Your task to perform on an android device: turn pop-ups off in chrome Image 0: 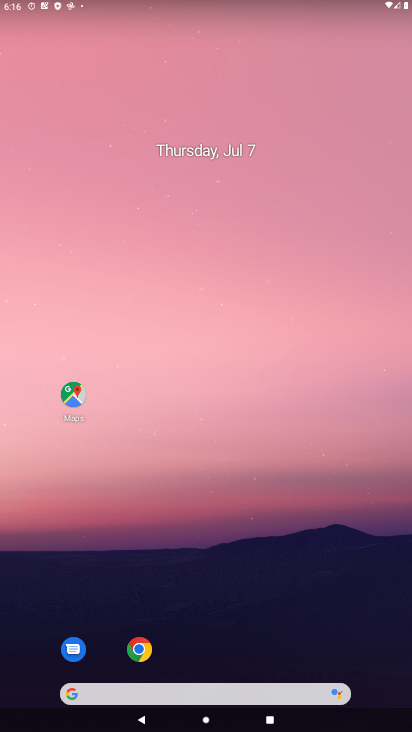
Step 0: drag from (371, 667) to (248, 151)
Your task to perform on an android device: turn pop-ups off in chrome Image 1: 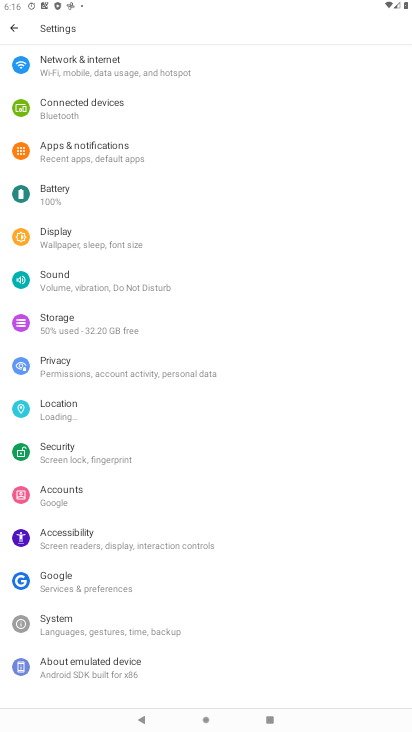
Step 1: press home button
Your task to perform on an android device: turn pop-ups off in chrome Image 2: 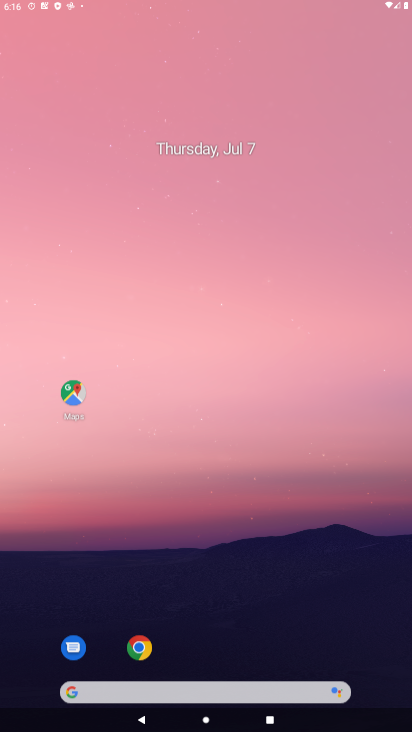
Step 2: drag from (384, 714) to (240, 115)
Your task to perform on an android device: turn pop-ups off in chrome Image 3: 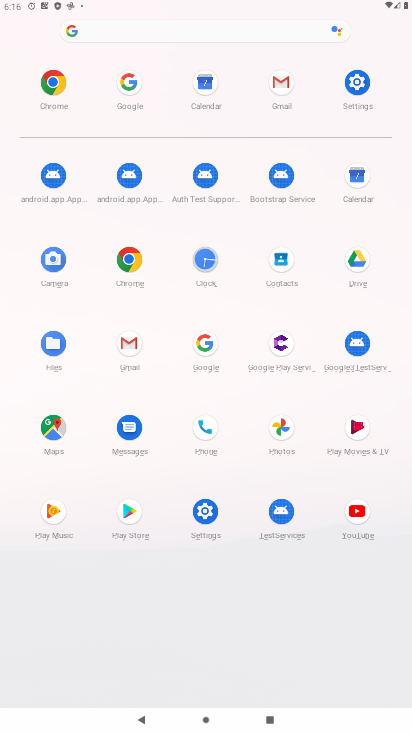
Step 3: click (134, 269)
Your task to perform on an android device: turn pop-ups off in chrome Image 4: 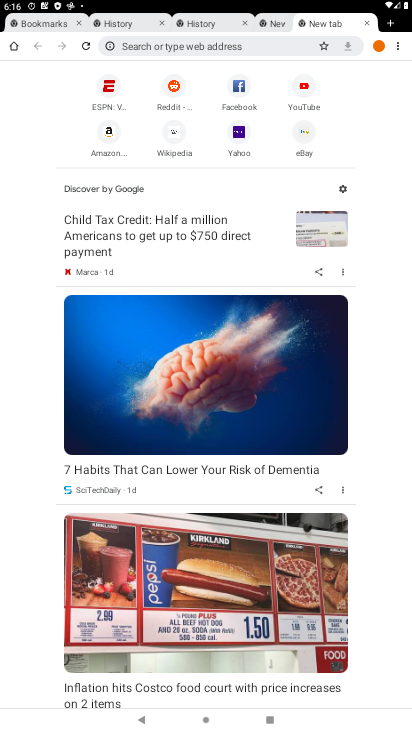
Step 4: click (395, 38)
Your task to perform on an android device: turn pop-ups off in chrome Image 5: 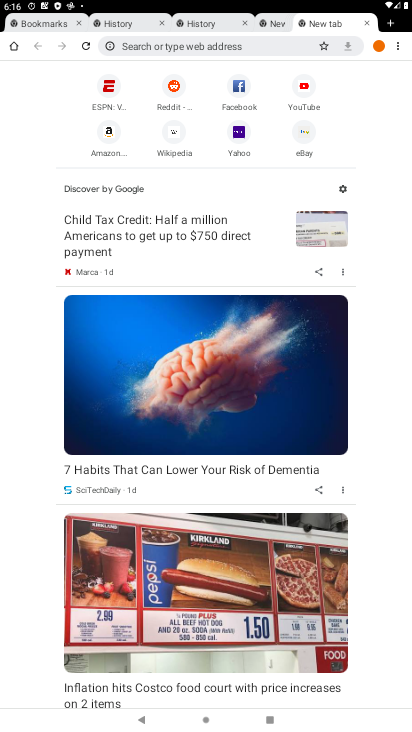
Step 5: click (396, 43)
Your task to perform on an android device: turn pop-ups off in chrome Image 6: 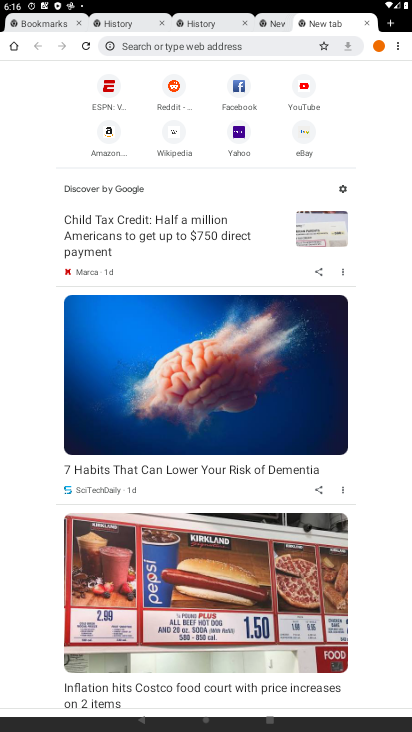
Step 6: click (393, 46)
Your task to perform on an android device: turn pop-ups off in chrome Image 7: 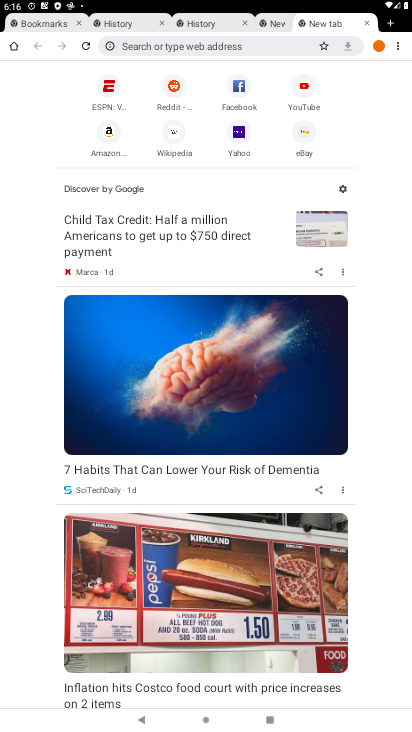
Step 7: click (399, 42)
Your task to perform on an android device: turn pop-ups off in chrome Image 8: 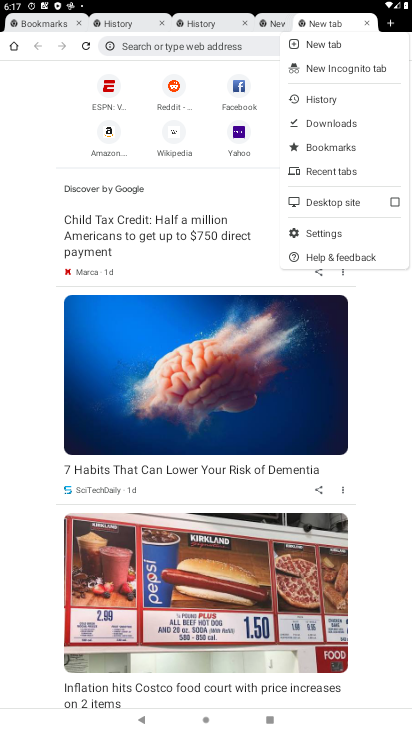
Step 8: click (332, 234)
Your task to perform on an android device: turn pop-ups off in chrome Image 9: 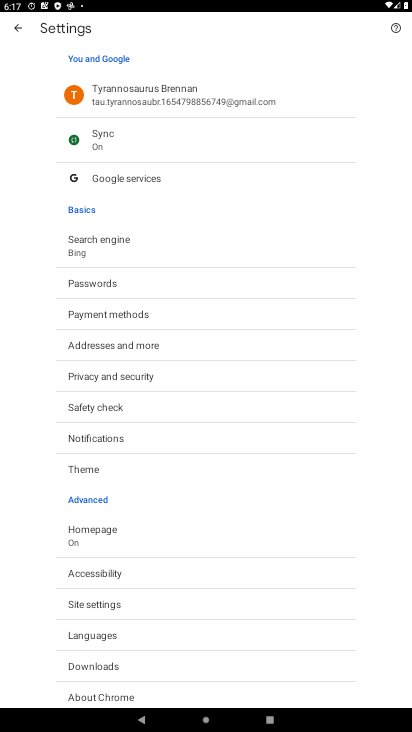
Step 9: click (144, 607)
Your task to perform on an android device: turn pop-ups off in chrome Image 10: 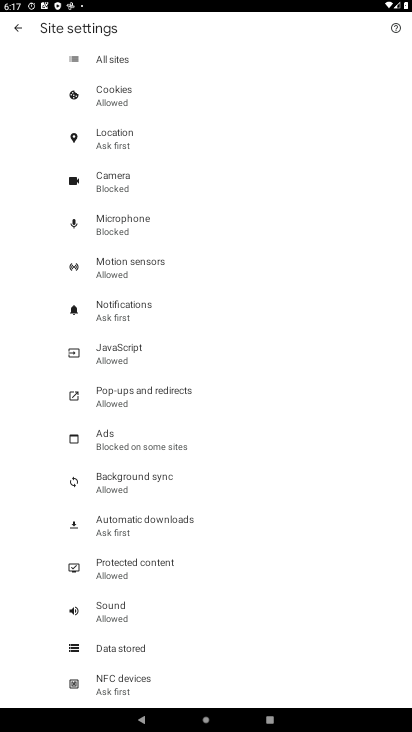
Step 10: click (150, 400)
Your task to perform on an android device: turn pop-ups off in chrome Image 11: 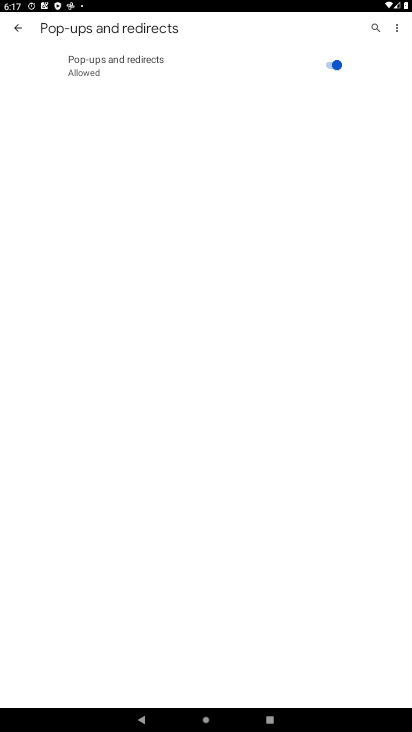
Step 11: click (332, 67)
Your task to perform on an android device: turn pop-ups off in chrome Image 12: 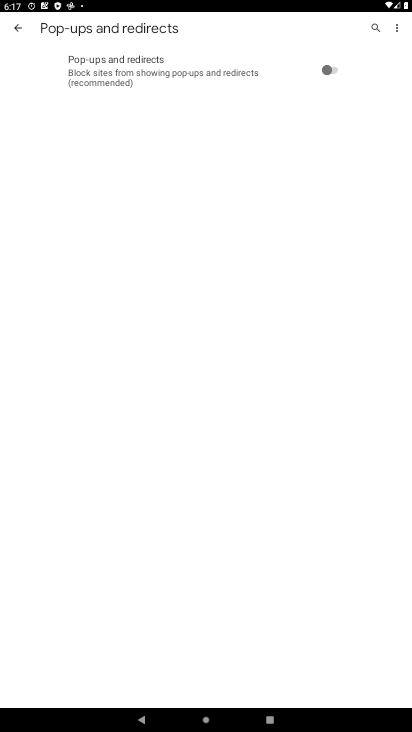
Step 12: task complete